Your task to perform on an android device: Do I have any events tomorrow? Image 0: 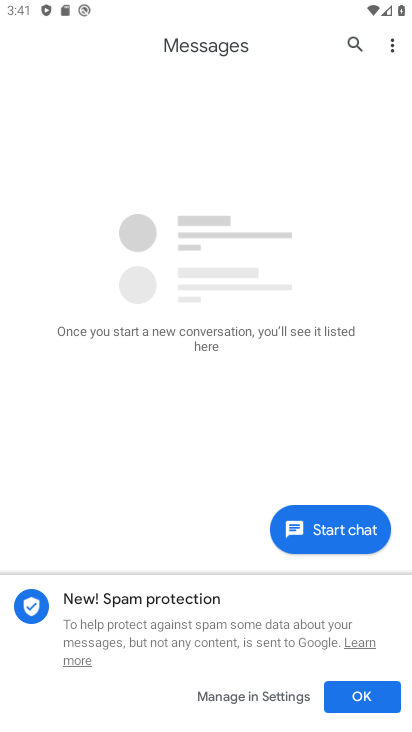
Step 0: press home button
Your task to perform on an android device: Do I have any events tomorrow? Image 1: 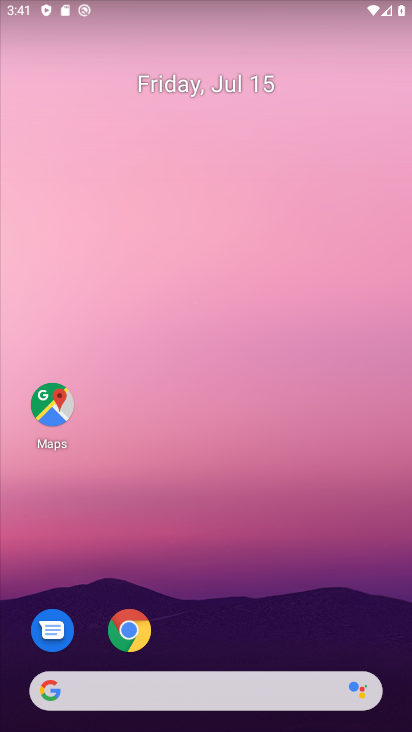
Step 1: drag from (204, 588) to (254, 166)
Your task to perform on an android device: Do I have any events tomorrow? Image 2: 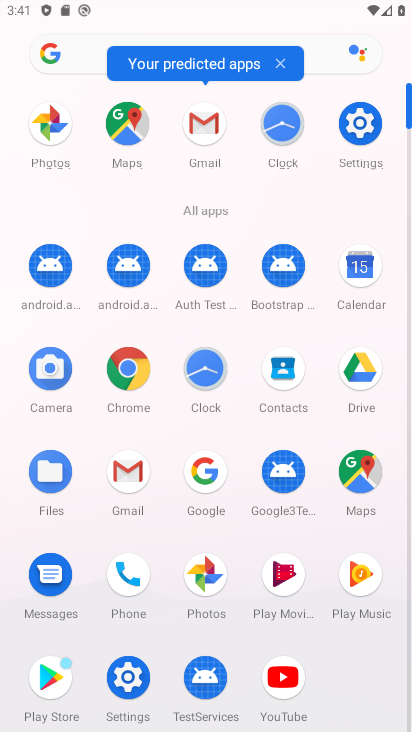
Step 2: click (370, 287)
Your task to perform on an android device: Do I have any events tomorrow? Image 3: 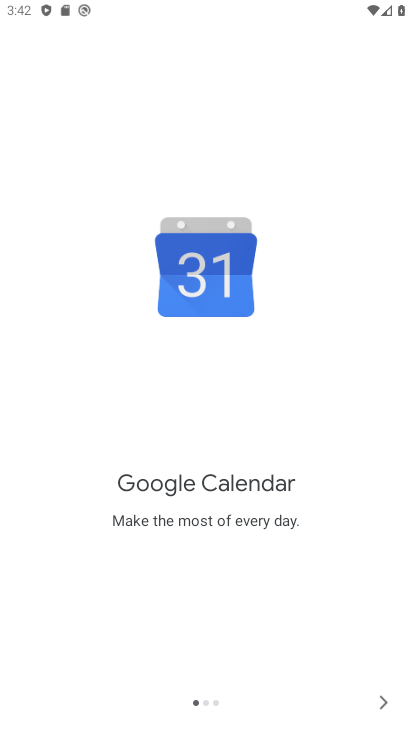
Step 3: click (382, 704)
Your task to perform on an android device: Do I have any events tomorrow? Image 4: 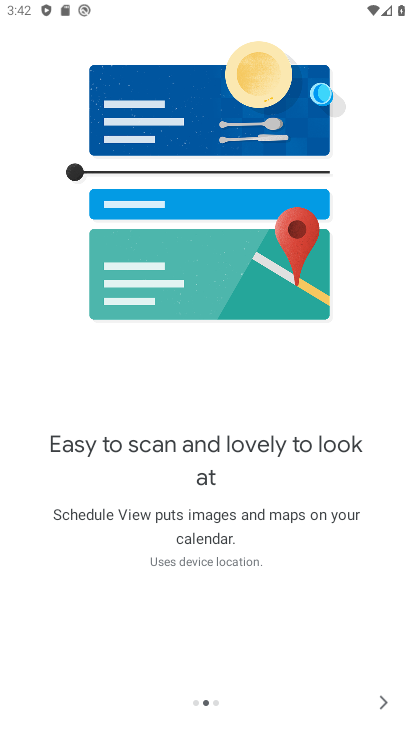
Step 4: click (382, 704)
Your task to perform on an android device: Do I have any events tomorrow? Image 5: 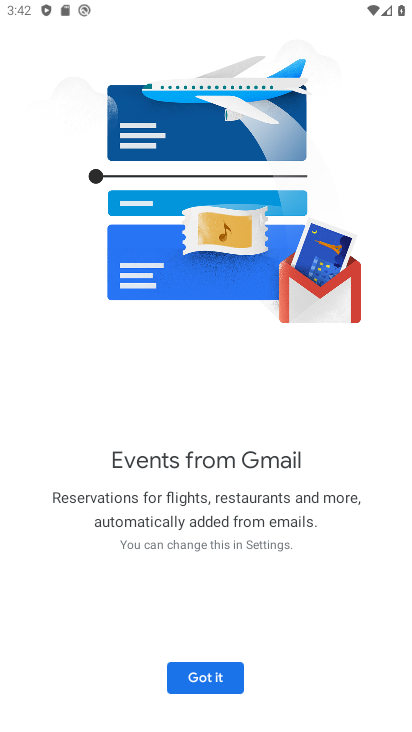
Step 5: click (216, 678)
Your task to perform on an android device: Do I have any events tomorrow? Image 6: 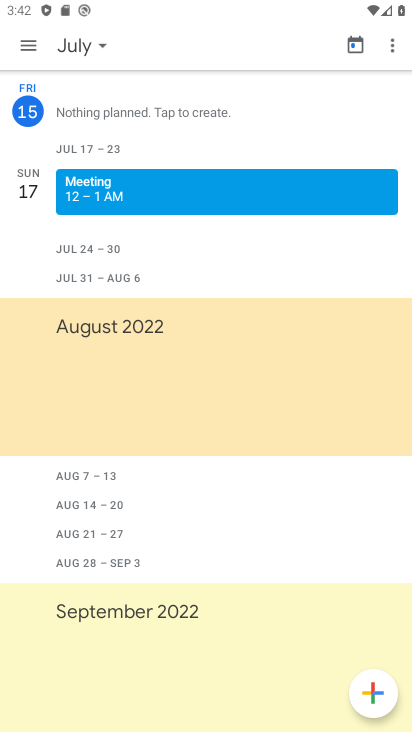
Step 6: click (90, 44)
Your task to perform on an android device: Do I have any events tomorrow? Image 7: 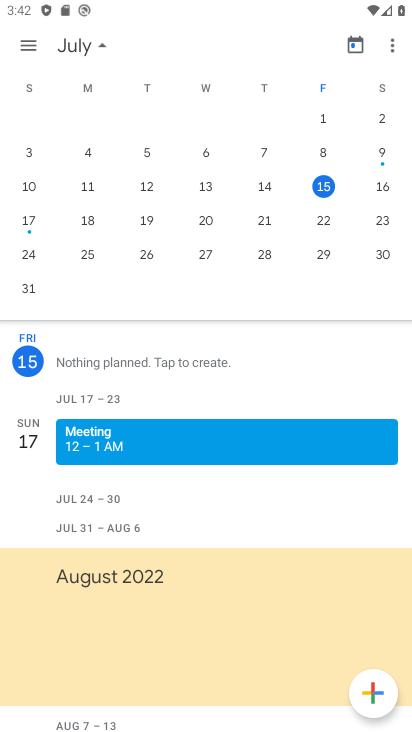
Step 7: click (383, 182)
Your task to perform on an android device: Do I have any events tomorrow? Image 8: 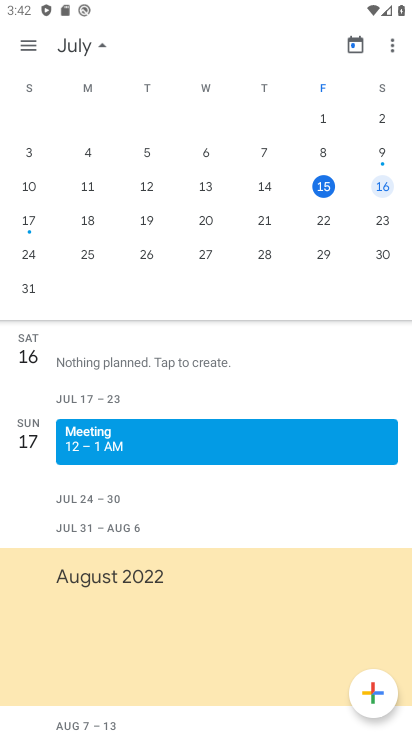
Step 8: click (75, 46)
Your task to perform on an android device: Do I have any events tomorrow? Image 9: 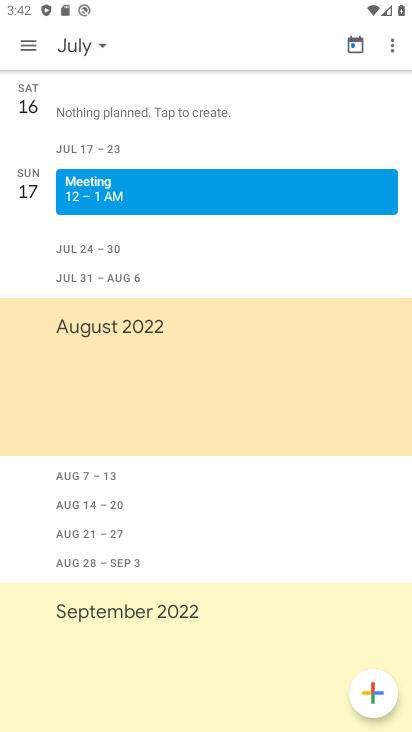
Step 9: task complete